Your task to perform on an android device: Play the last video I watched on Youtube Image 0: 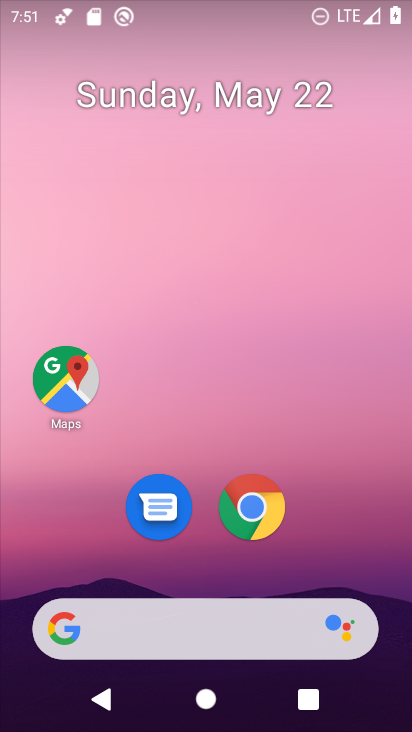
Step 0: drag from (231, 635) to (212, 18)
Your task to perform on an android device: Play the last video I watched on Youtube Image 1: 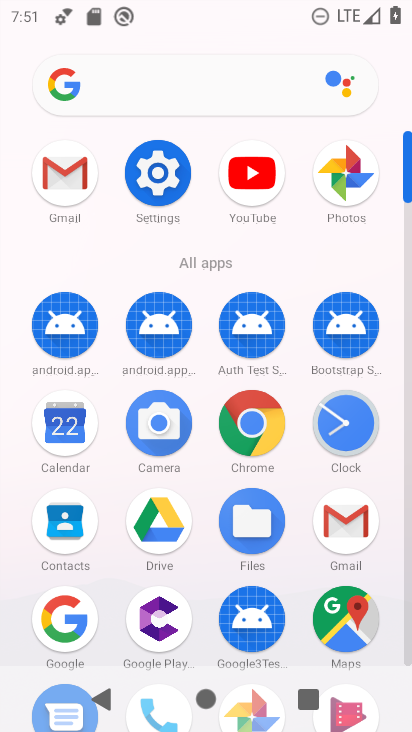
Step 1: drag from (203, 543) to (290, 35)
Your task to perform on an android device: Play the last video I watched on Youtube Image 2: 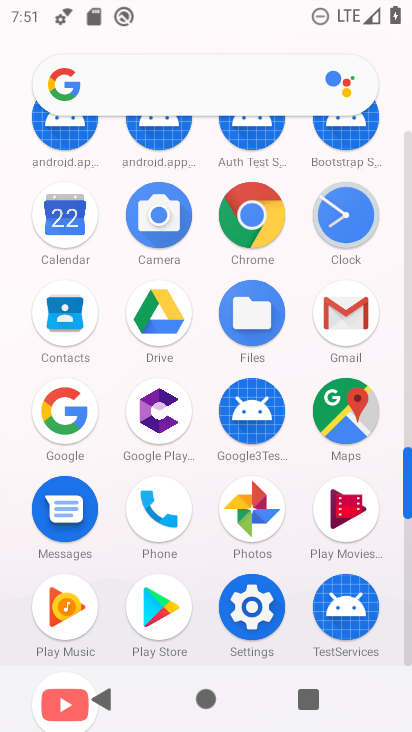
Step 2: drag from (31, 457) to (57, 62)
Your task to perform on an android device: Play the last video I watched on Youtube Image 3: 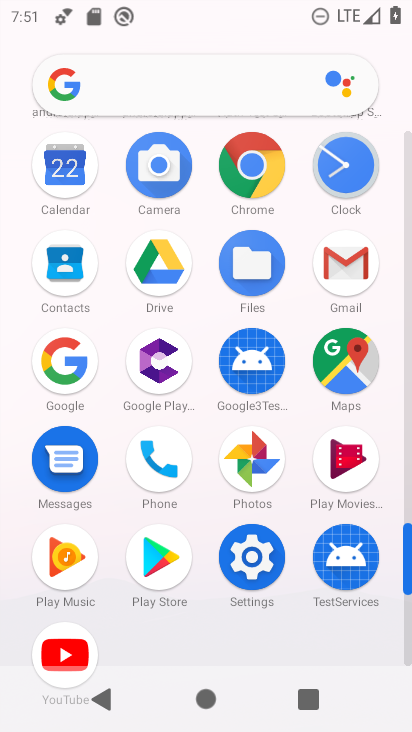
Step 3: click (74, 641)
Your task to perform on an android device: Play the last video I watched on Youtube Image 4: 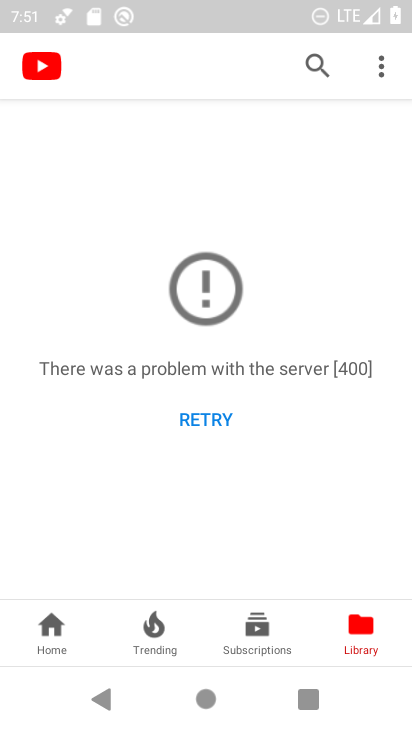
Step 4: task complete